Your task to perform on an android device: Open calendar and show me the second week of next month Image 0: 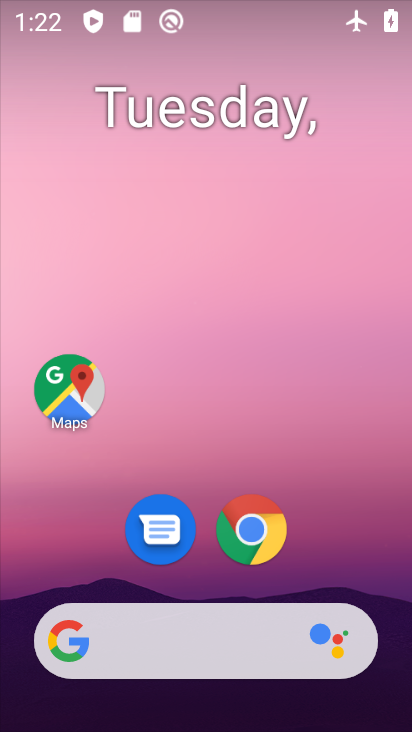
Step 0: drag from (378, 532) to (345, 256)
Your task to perform on an android device: Open calendar and show me the second week of next month Image 1: 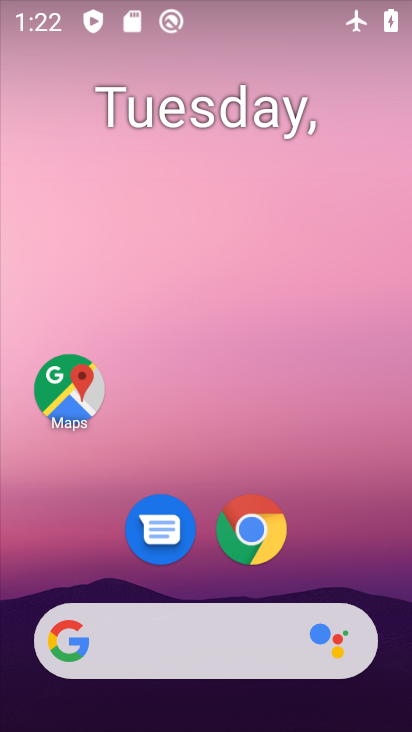
Step 1: drag from (382, 528) to (306, 151)
Your task to perform on an android device: Open calendar and show me the second week of next month Image 2: 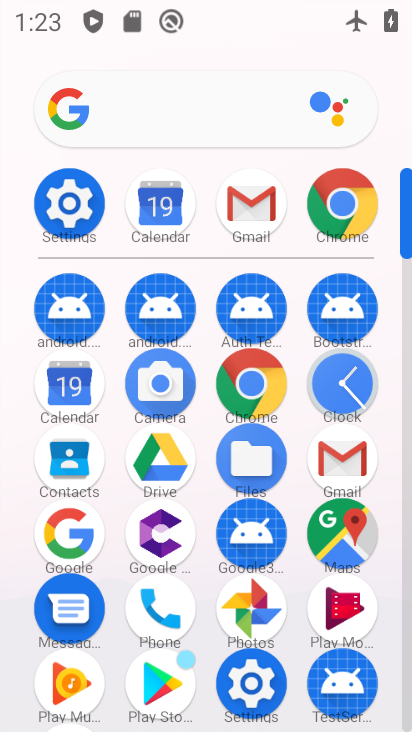
Step 2: click (92, 392)
Your task to perform on an android device: Open calendar and show me the second week of next month Image 3: 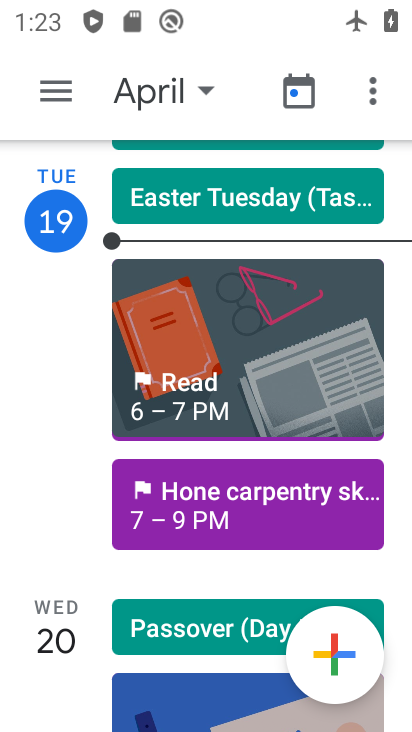
Step 3: click (64, 100)
Your task to perform on an android device: Open calendar and show me the second week of next month Image 4: 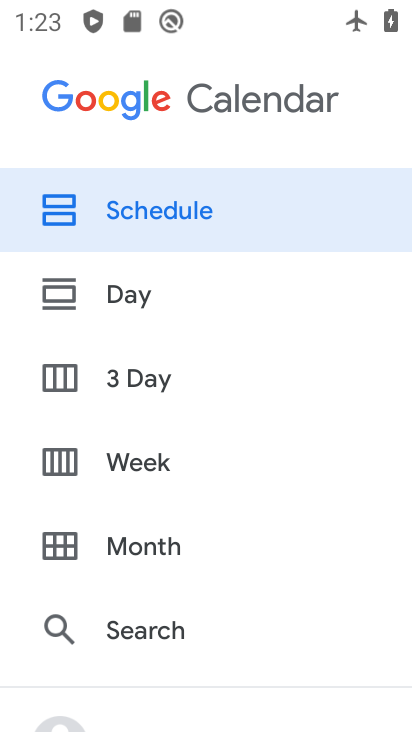
Step 4: click (184, 471)
Your task to perform on an android device: Open calendar and show me the second week of next month Image 5: 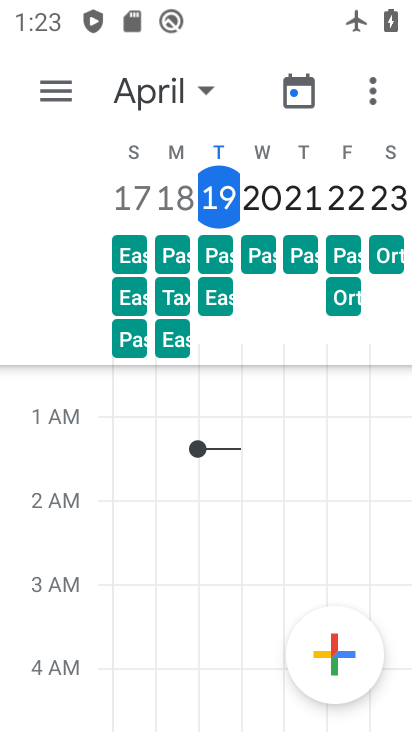
Step 5: click (211, 97)
Your task to perform on an android device: Open calendar and show me the second week of next month Image 6: 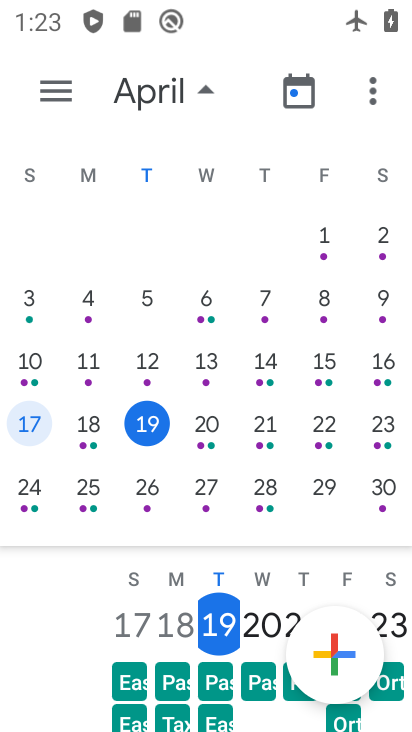
Step 6: drag from (390, 406) to (25, 347)
Your task to perform on an android device: Open calendar and show me the second week of next month Image 7: 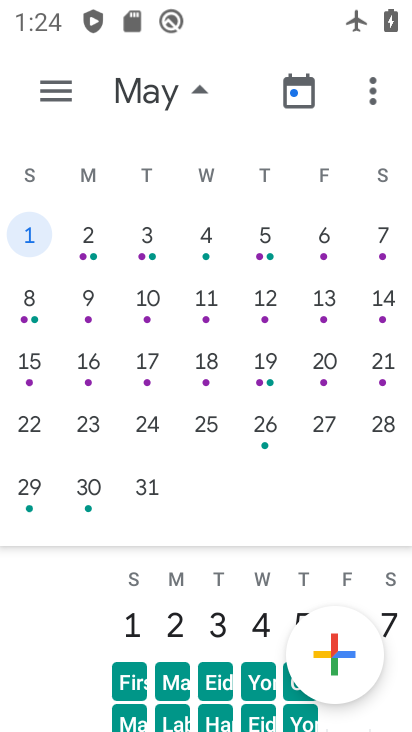
Step 7: click (157, 309)
Your task to perform on an android device: Open calendar and show me the second week of next month Image 8: 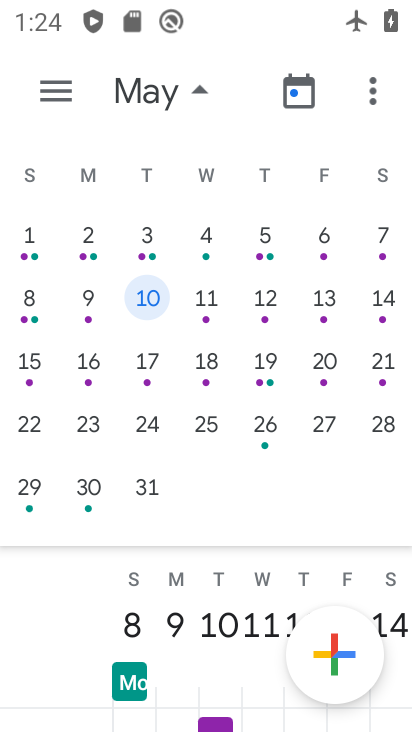
Step 8: click (191, 103)
Your task to perform on an android device: Open calendar and show me the second week of next month Image 9: 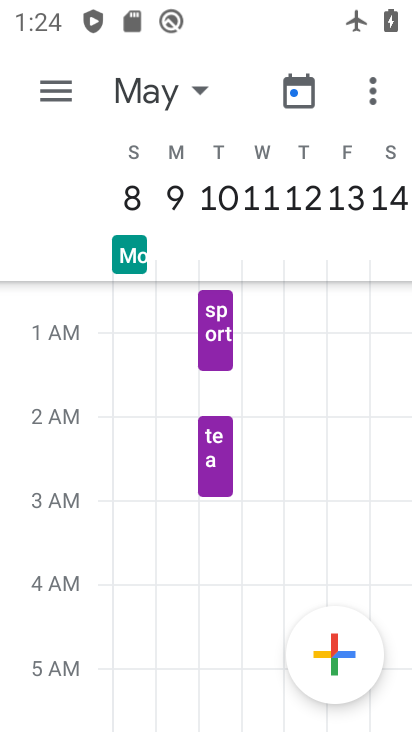
Step 9: task complete